Your task to perform on an android device: turn off javascript in the chrome app Image 0: 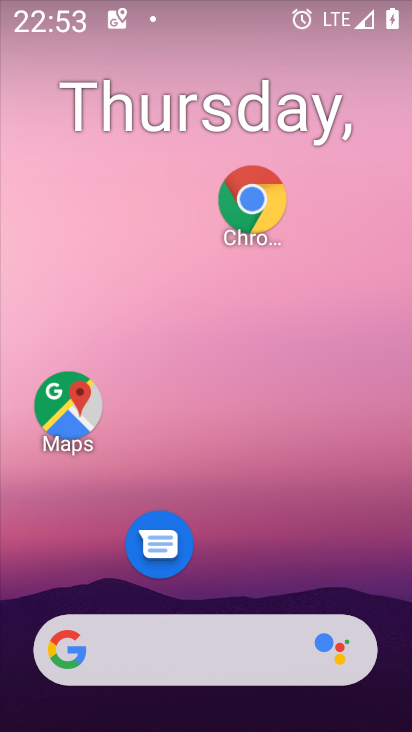
Step 0: click (248, 198)
Your task to perform on an android device: turn off javascript in the chrome app Image 1: 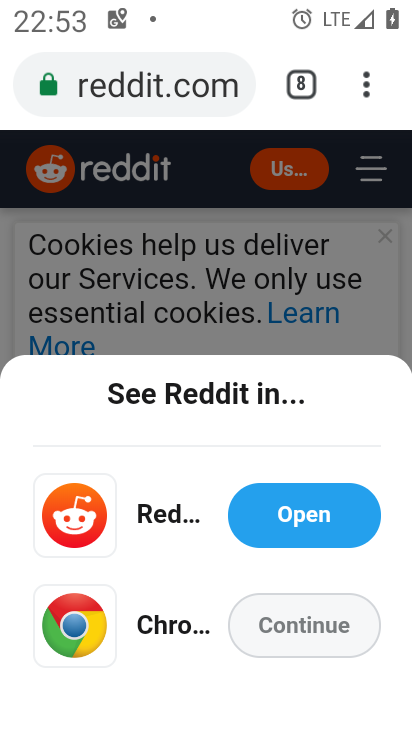
Step 1: click (361, 80)
Your task to perform on an android device: turn off javascript in the chrome app Image 2: 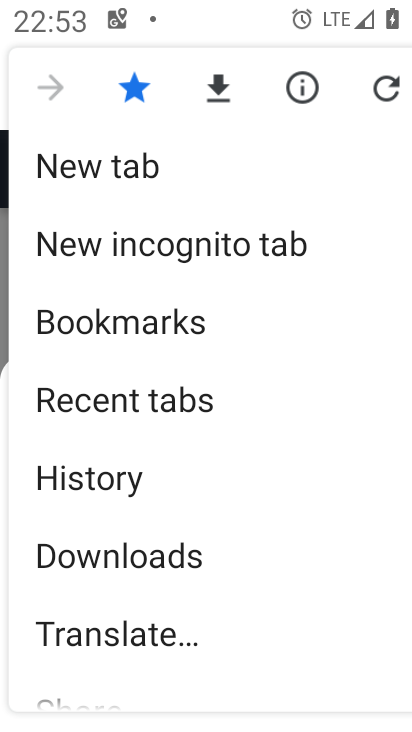
Step 2: drag from (77, 676) to (154, 134)
Your task to perform on an android device: turn off javascript in the chrome app Image 3: 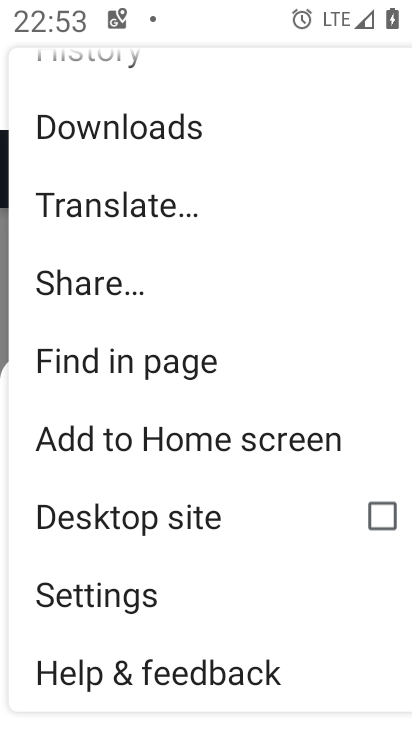
Step 3: click (43, 600)
Your task to perform on an android device: turn off javascript in the chrome app Image 4: 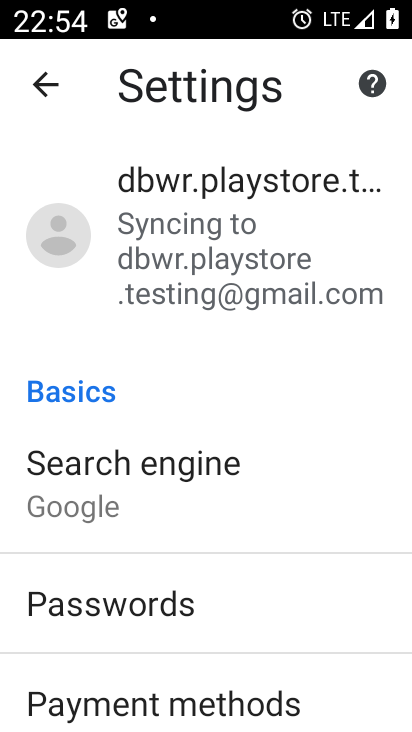
Step 4: drag from (108, 695) to (268, 90)
Your task to perform on an android device: turn off javascript in the chrome app Image 5: 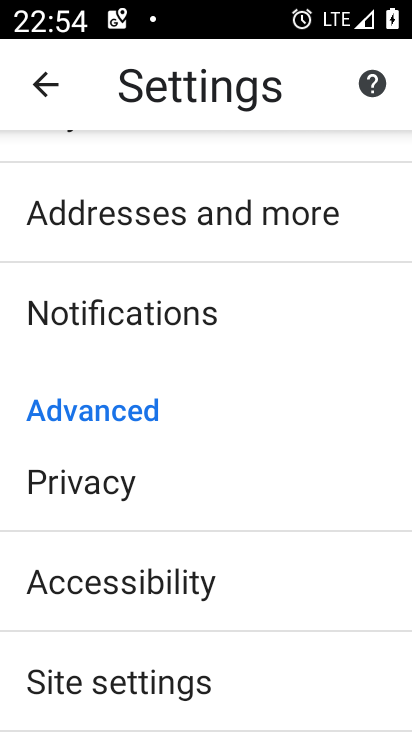
Step 5: click (81, 676)
Your task to perform on an android device: turn off javascript in the chrome app Image 6: 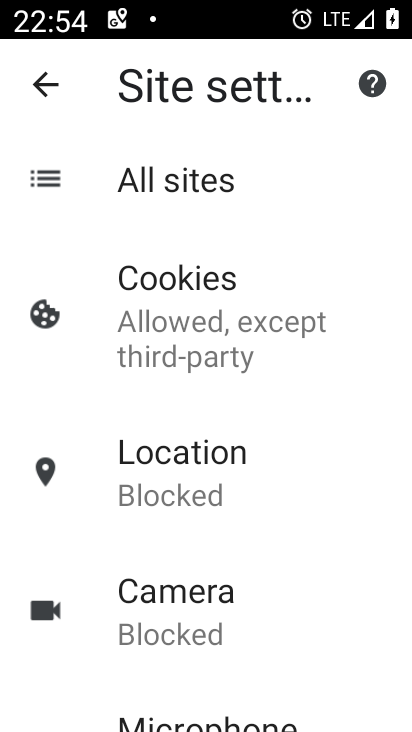
Step 6: drag from (148, 667) to (254, 177)
Your task to perform on an android device: turn off javascript in the chrome app Image 7: 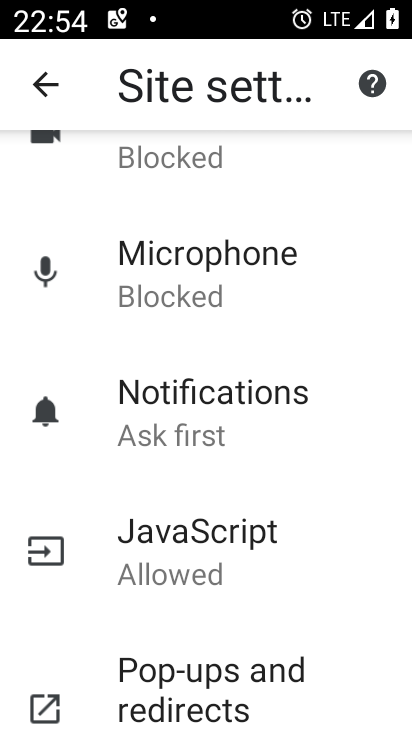
Step 7: click (71, 568)
Your task to perform on an android device: turn off javascript in the chrome app Image 8: 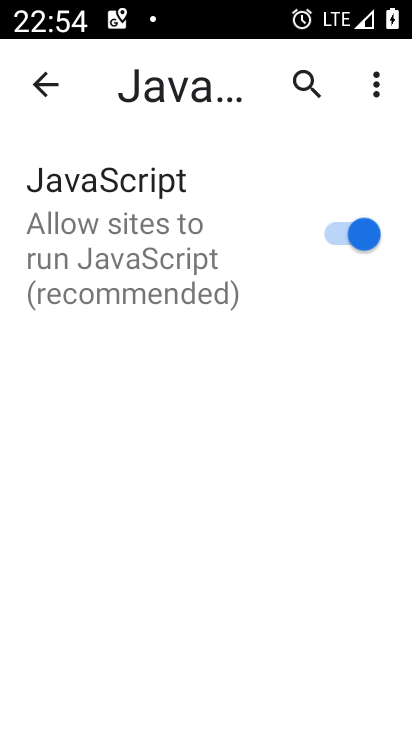
Step 8: click (365, 230)
Your task to perform on an android device: turn off javascript in the chrome app Image 9: 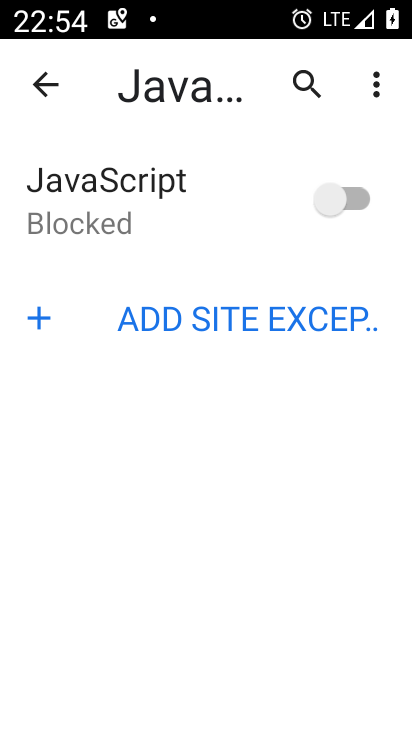
Step 9: task complete